Your task to perform on an android device: Clear the shopping cart on ebay.com. Search for "apple airpods" on ebay.com, select the first entry, add it to the cart, then select checkout. Image 0: 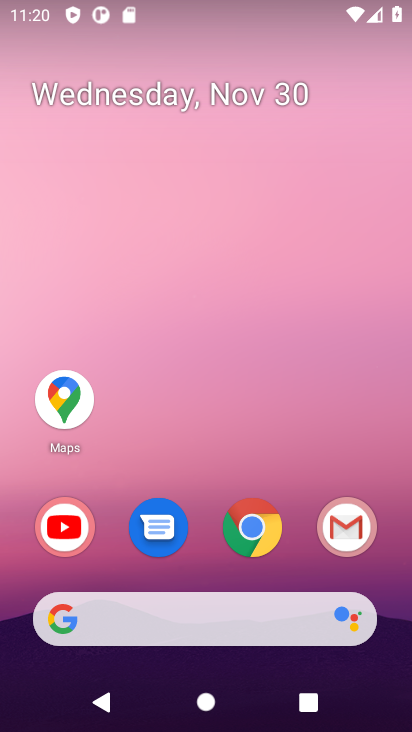
Step 0: click (250, 540)
Your task to perform on an android device: Clear the shopping cart on ebay.com. Search for "apple airpods" on ebay.com, select the first entry, add it to the cart, then select checkout. Image 1: 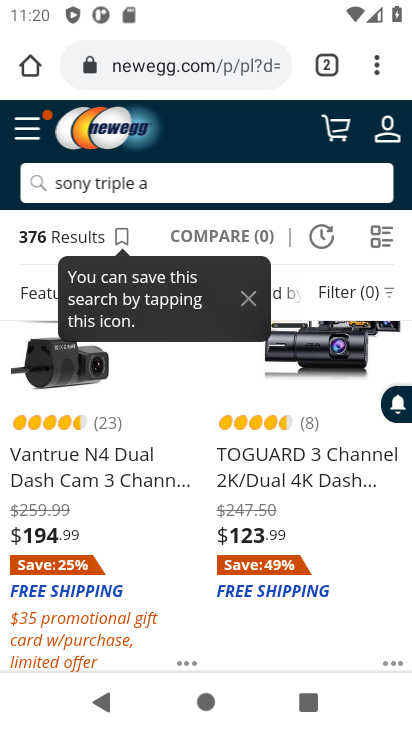
Step 1: click (188, 74)
Your task to perform on an android device: Clear the shopping cart on ebay.com. Search for "apple airpods" on ebay.com, select the first entry, add it to the cart, then select checkout. Image 2: 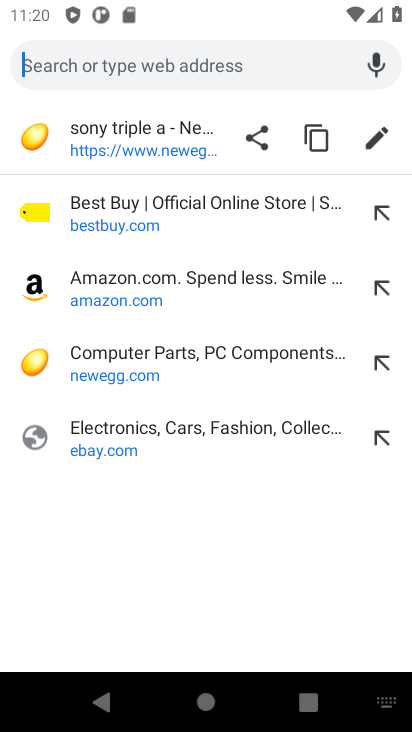
Step 2: click (98, 433)
Your task to perform on an android device: Clear the shopping cart on ebay.com. Search for "apple airpods" on ebay.com, select the first entry, add it to the cart, then select checkout. Image 3: 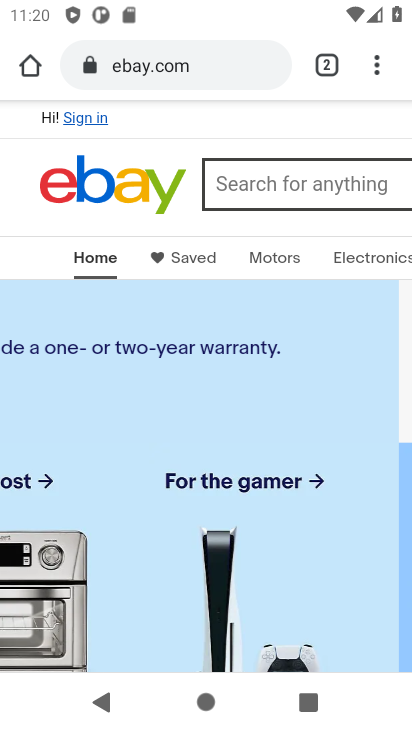
Step 3: drag from (342, 149) to (81, 140)
Your task to perform on an android device: Clear the shopping cart on ebay.com. Search for "apple airpods" on ebay.com, select the first entry, add it to the cart, then select checkout. Image 4: 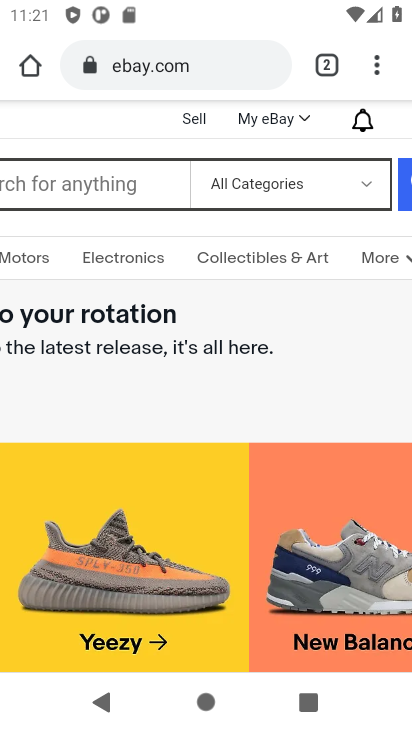
Step 4: drag from (343, 155) to (12, 132)
Your task to perform on an android device: Clear the shopping cart on ebay.com. Search for "apple airpods" on ebay.com, select the first entry, add it to the cart, then select checkout. Image 5: 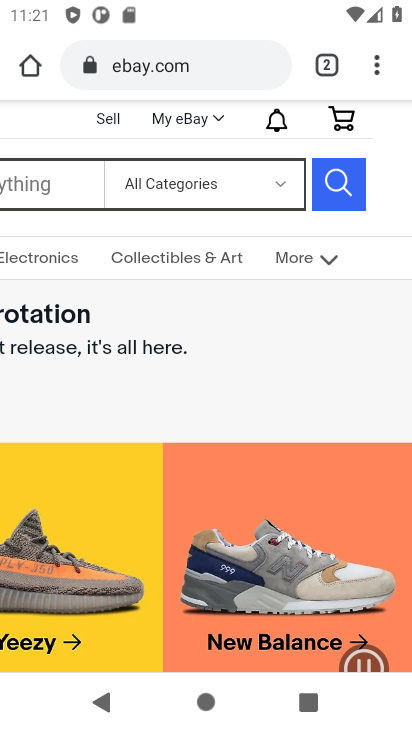
Step 5: click (339, 107)
Your task to perform on an android device: Clear the shopping cart on ebay.com. Search for "apple airpods" on ebay.com, select the first entry, add it to the cart, then select checkout. Image 6: 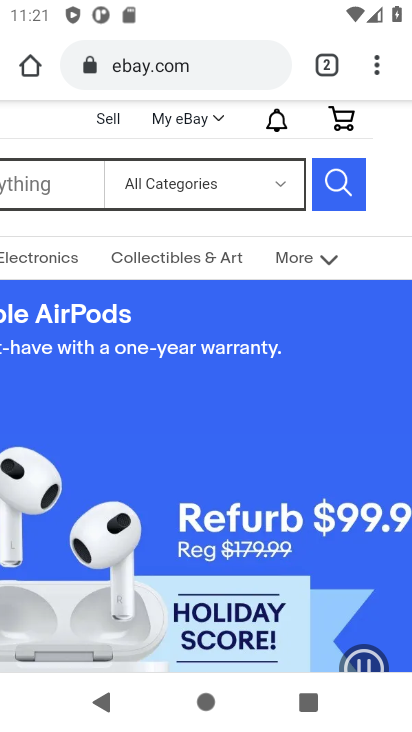
Step 6: click (25, 185)
Your task to perform on an android device: Clear the shopping cart on ebay.com. Search for "apple airpods" on ebay.com, select the first entry, add it to the cart, then select checkout. Image 7: 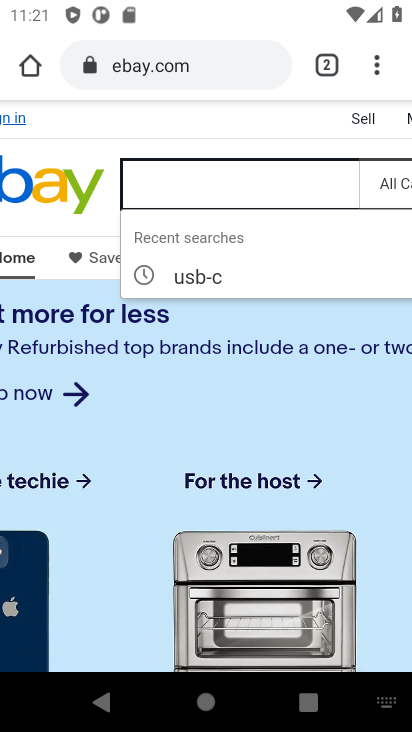
Step 7: type "apple airpods"
Your task to perform on an android device: Clear the shopping cart on ebay.com. Search for "apple airpods" on ebay.com, select the first entry, add it to the cart, then select checkout. Image 8: 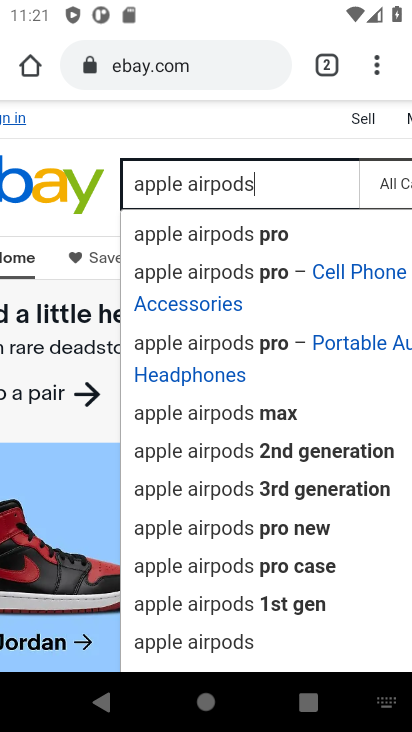
Step 8: click (178, 636)
Your task to perform on an android device: Clear the shopping cart on ebay.com. Search for "apple airpods" on ebay.com, select the first entry, add it to the cart, then select checkout. Image 9: 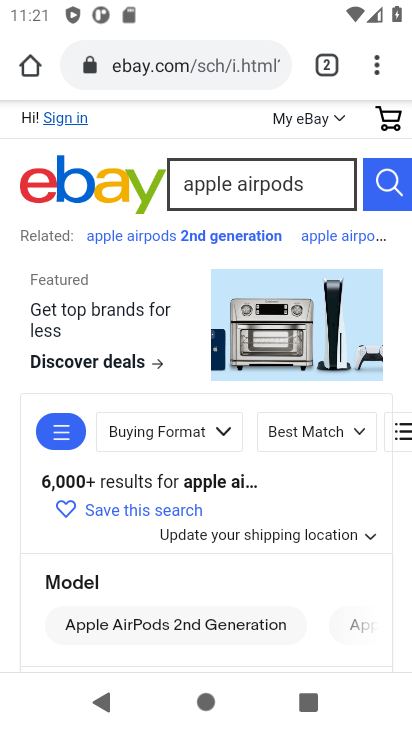
Step 9: drag from (270, 444) to (232, 136)
Your task to perform on an android device: Clear the shopping cart on ebay.com. Search for "apple airpods" on ebay.com, select the first entry, add it to the cart, then select checkout. Image 10: 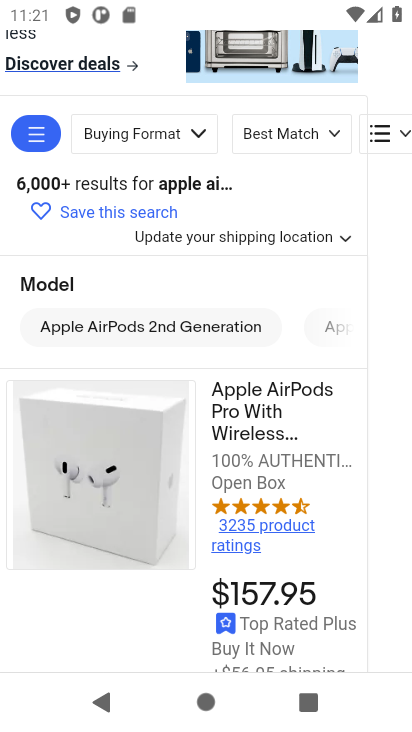
Step 10: click (139, 487)
Your task to perform on an android device: Clear the shopping cart on ebay.com. Search for "apple airpods" on ebay.com, select the first entry, add it to the cart, then select checkout. Image 11: 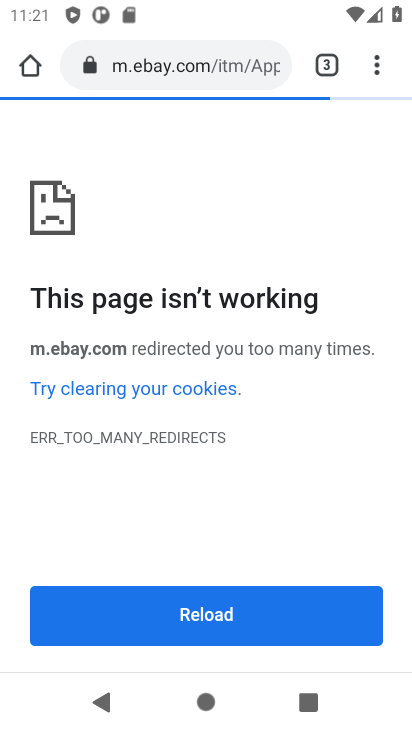
Step 11: task complete